Your task to perform on an android device: open sync settings in chrome Image 0: 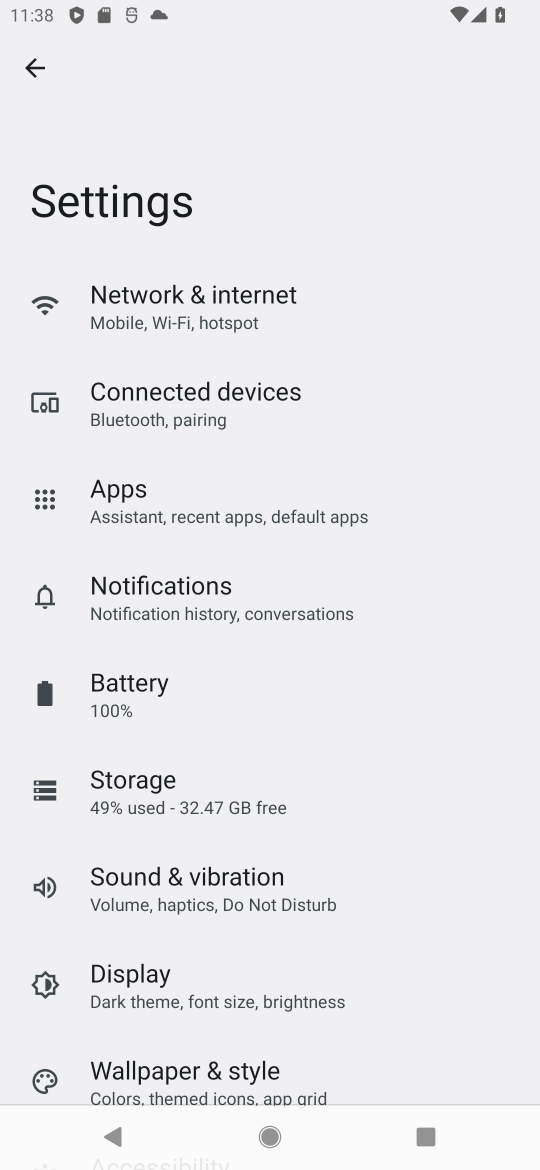
Step 0: press home button
Your task to perform on an android device: open sync settings in chrome Image 1: 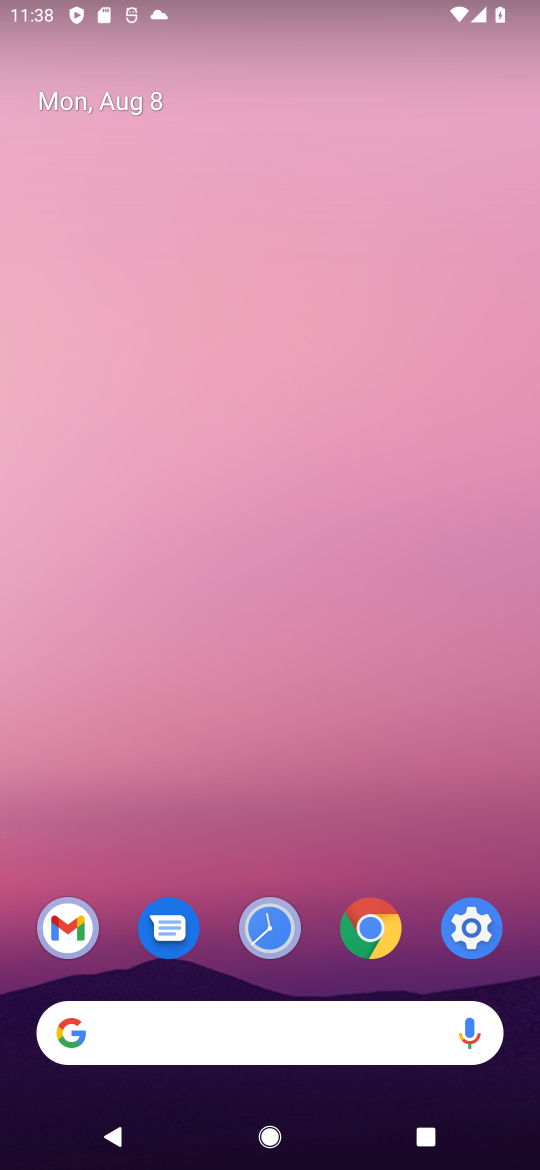
Step 1: click (371, 930)
Your task to perform on an android device: open sync settings in chrome Image 2: 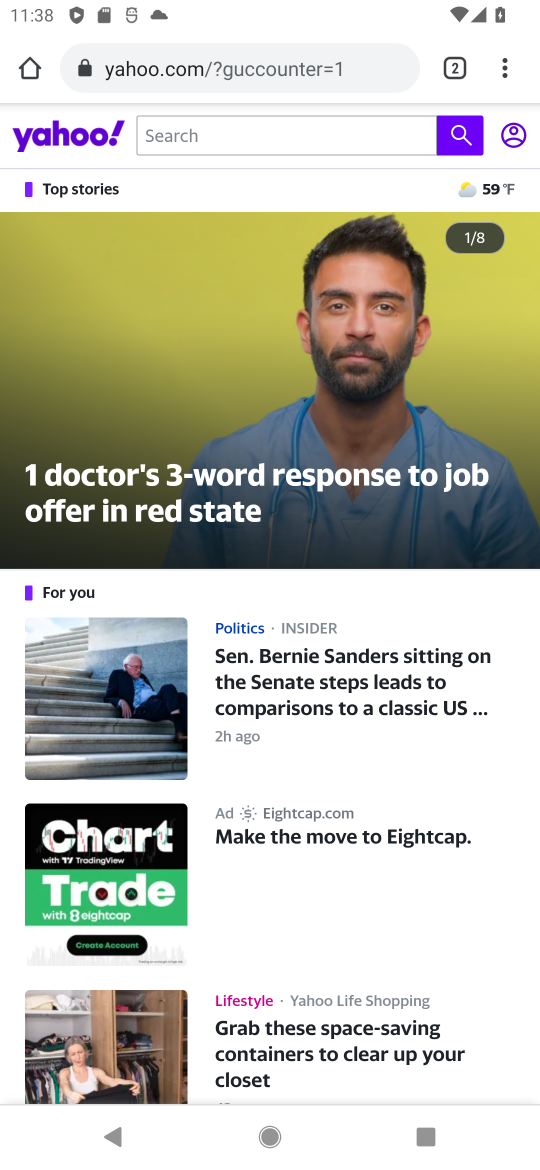
Step 2: click (505, 72)
Your task to perform on an android device: open sync settings in chrome Image 3: 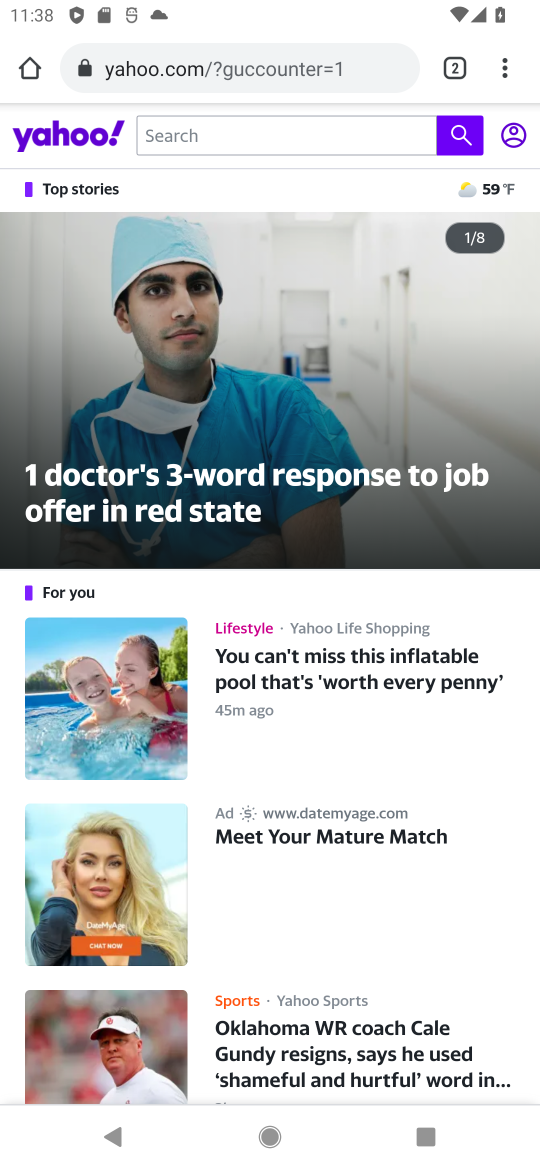
Step 3: click (492, 75)
Your task to perform on an android device: open sync settings in chrome Image 4: 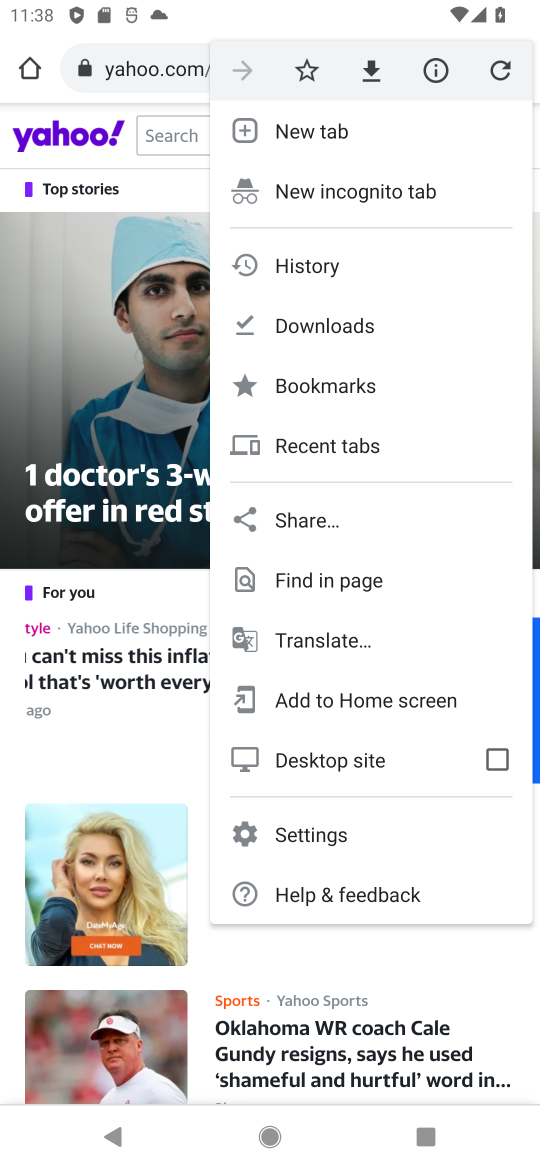
Step 4: click (315, 833)
Your task to perform on an android device: open sync settings in chrome Image 5: 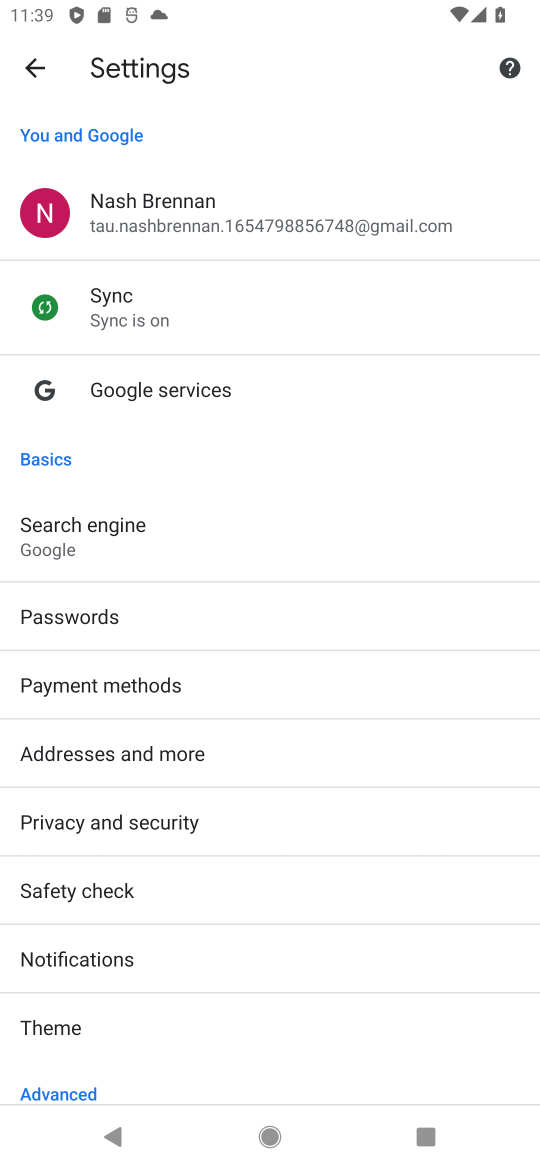
Step 5: drag from (147, 960) to (212, 598)
Your task to perform on an android device: open sync settings in chrome Image 6: 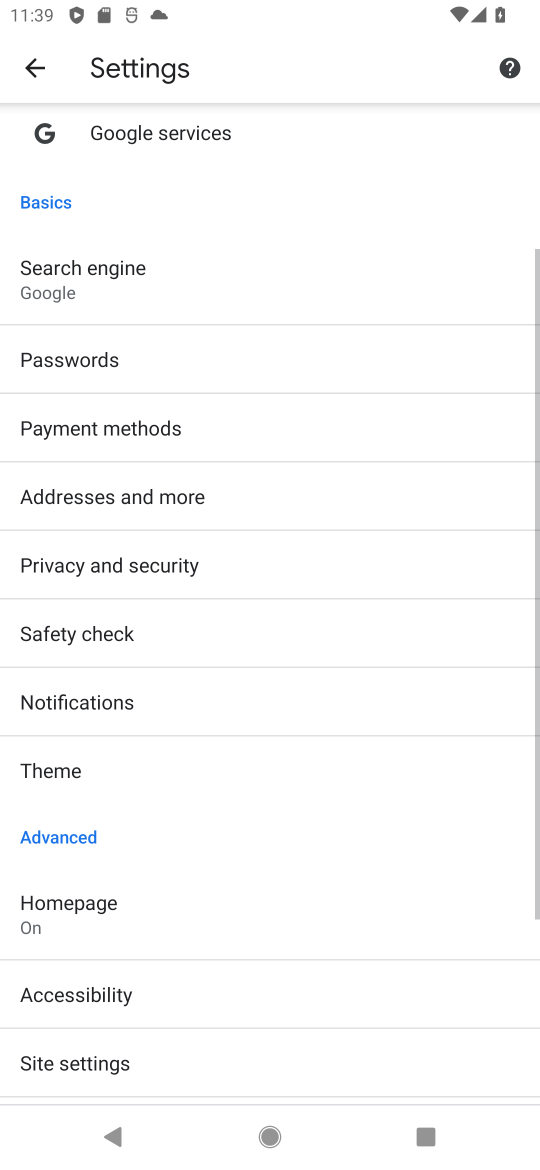
Step 6: click (101, 1055)
Your task to perform on an android device: open sync settings in chrome Image 7: 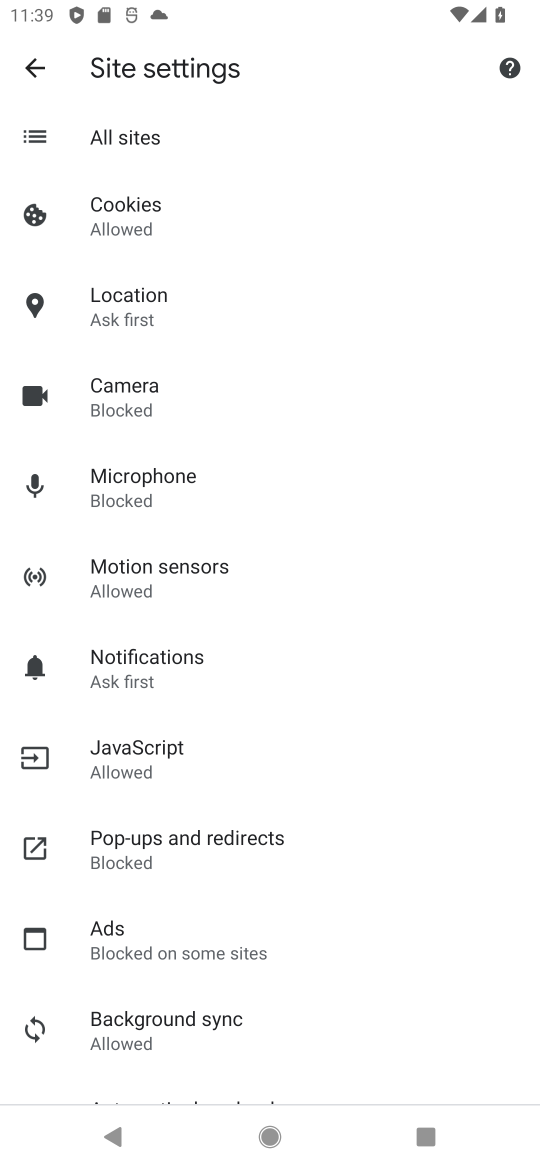
Step 7: click (158, 1013)
Your task to perform on an android device: open sync settings in chrome Image 8: 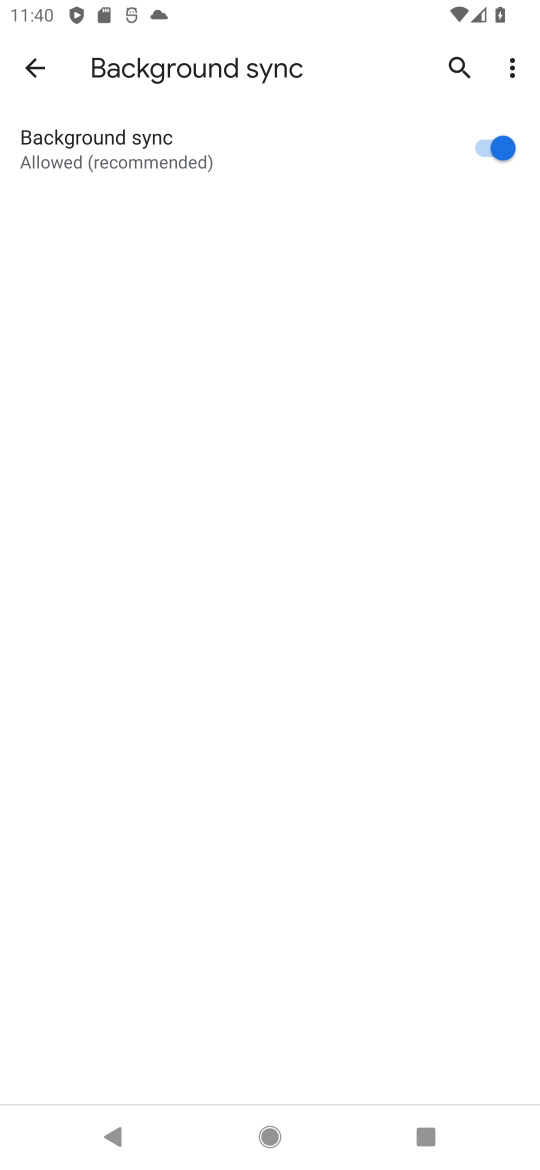
Step 8: task complete